Your task to perform on an android device: check the backup settings in the google photos Image 0: 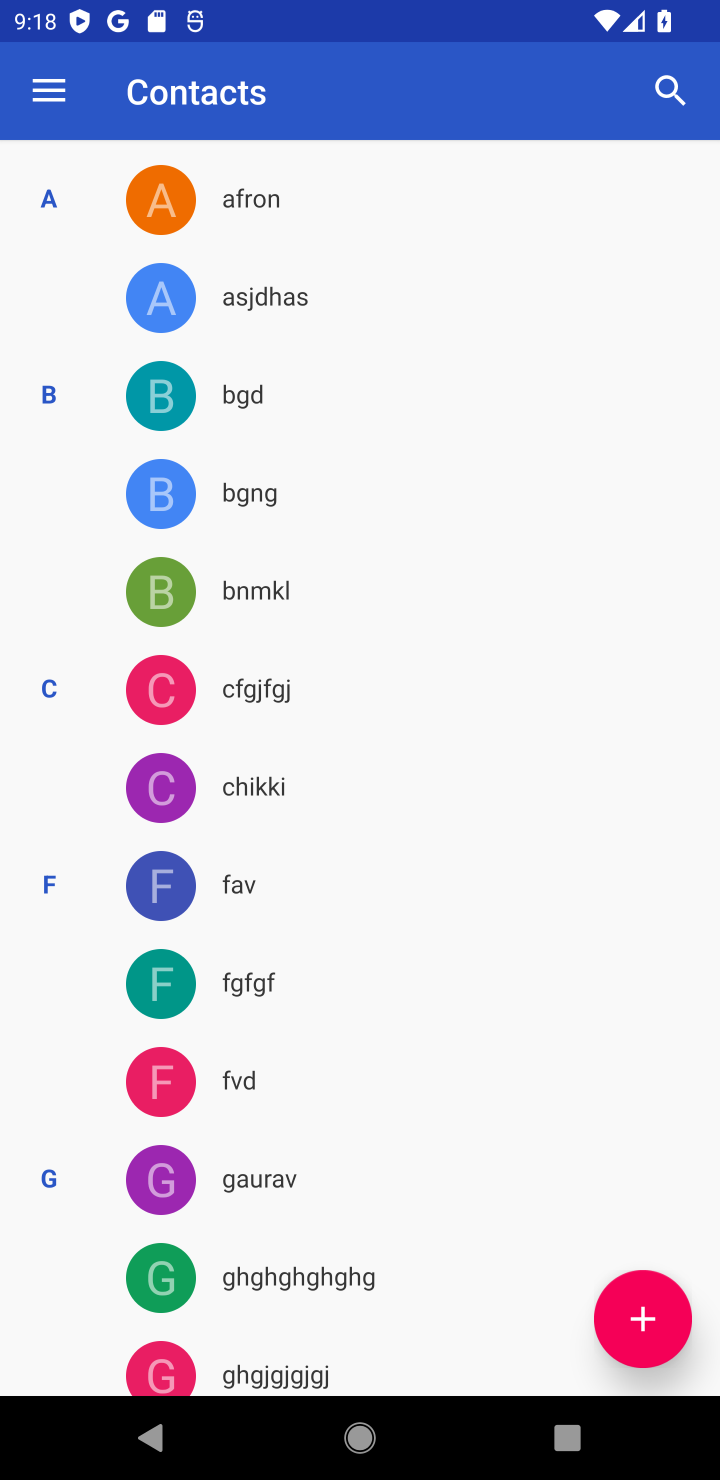
Step 0: press home button
Your task to perform on an android device: check the backup settings in the google photos Image 1: 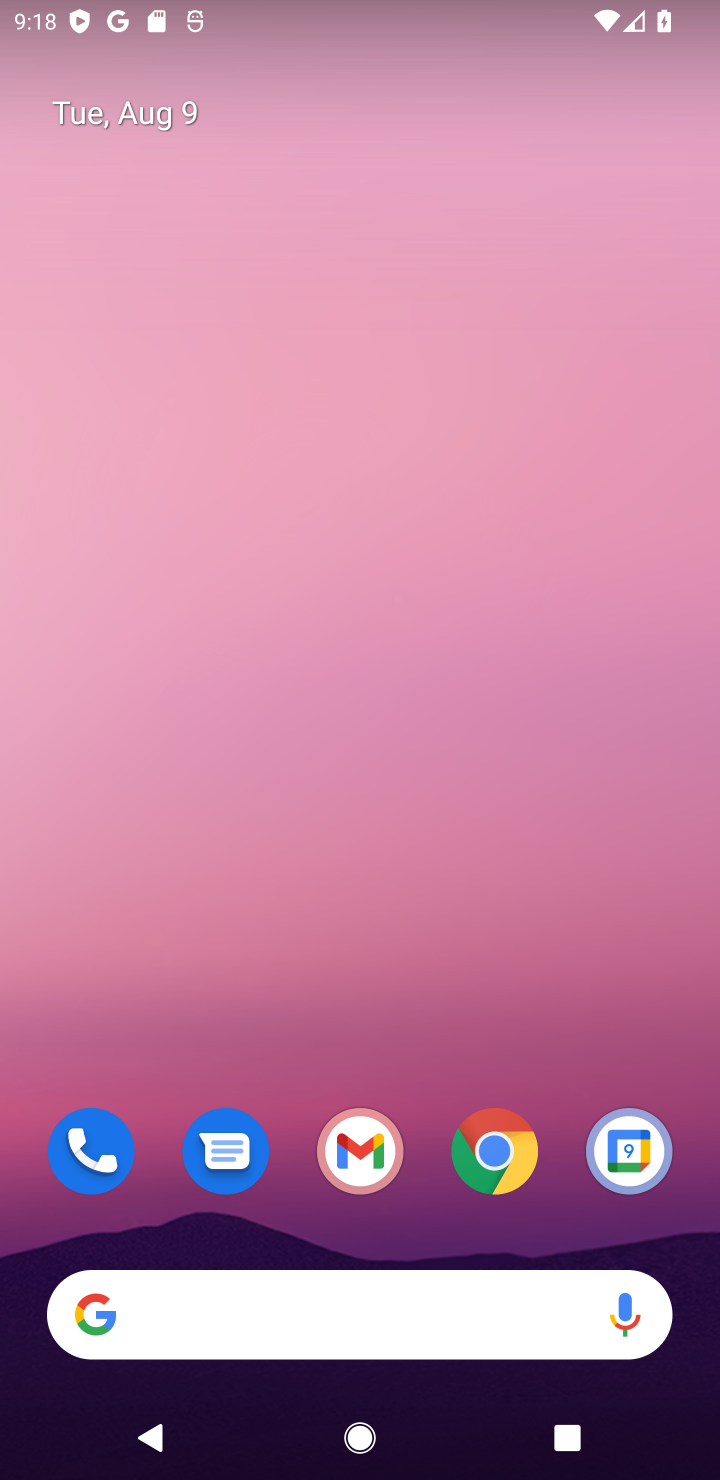
Step 1: drag from (280, 1039) to (350, 273)
Your task to perform on an android device: check the backup settings in the google photos Image 2: 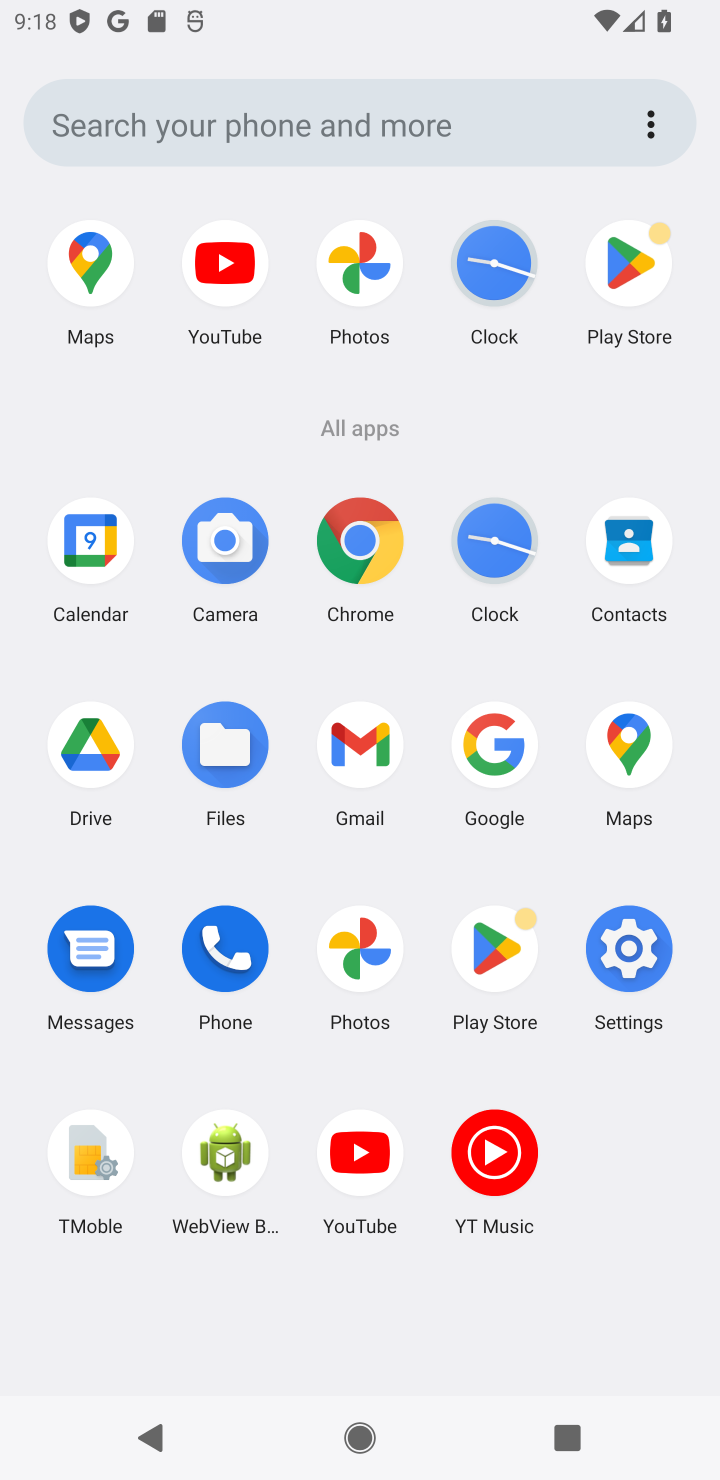
Step 2: click (353, 280)
Your task to perform on an android device: check the backup settings in the google photos Image 3: 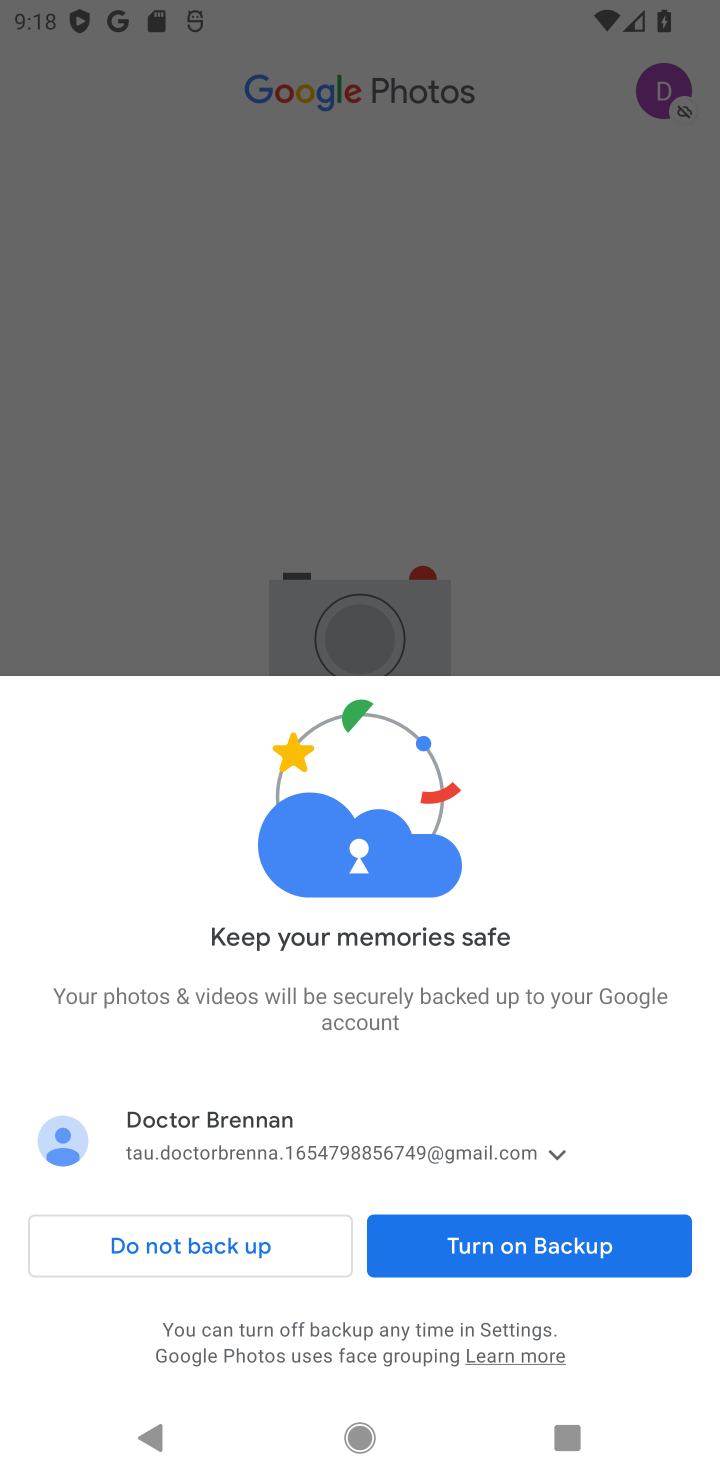
Step 3: click (402, 1235)
Your task to perform on an android device: check the backup settings in the google photos Image 4: 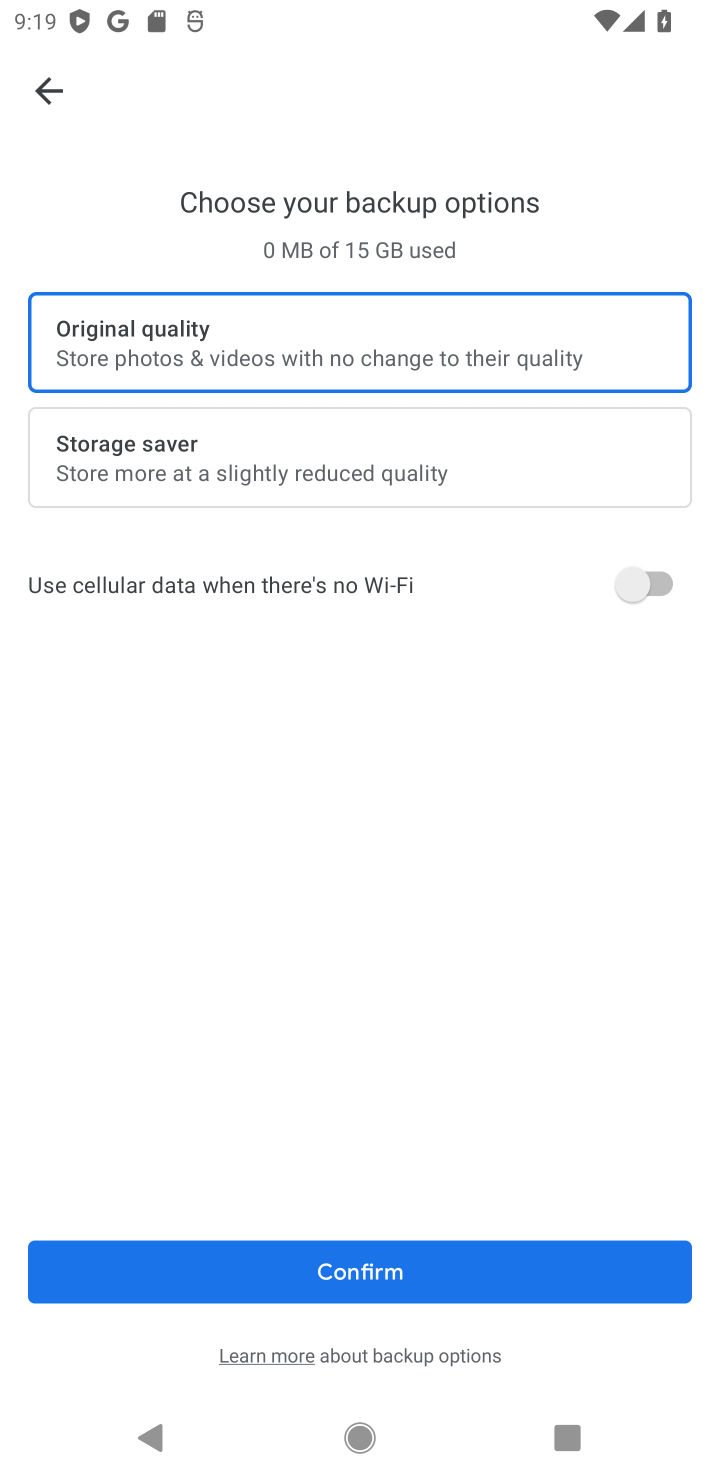
Step 4: click (261, 1266)
Your task to perform on an android device: check the backup settings in the google photos Image 5: 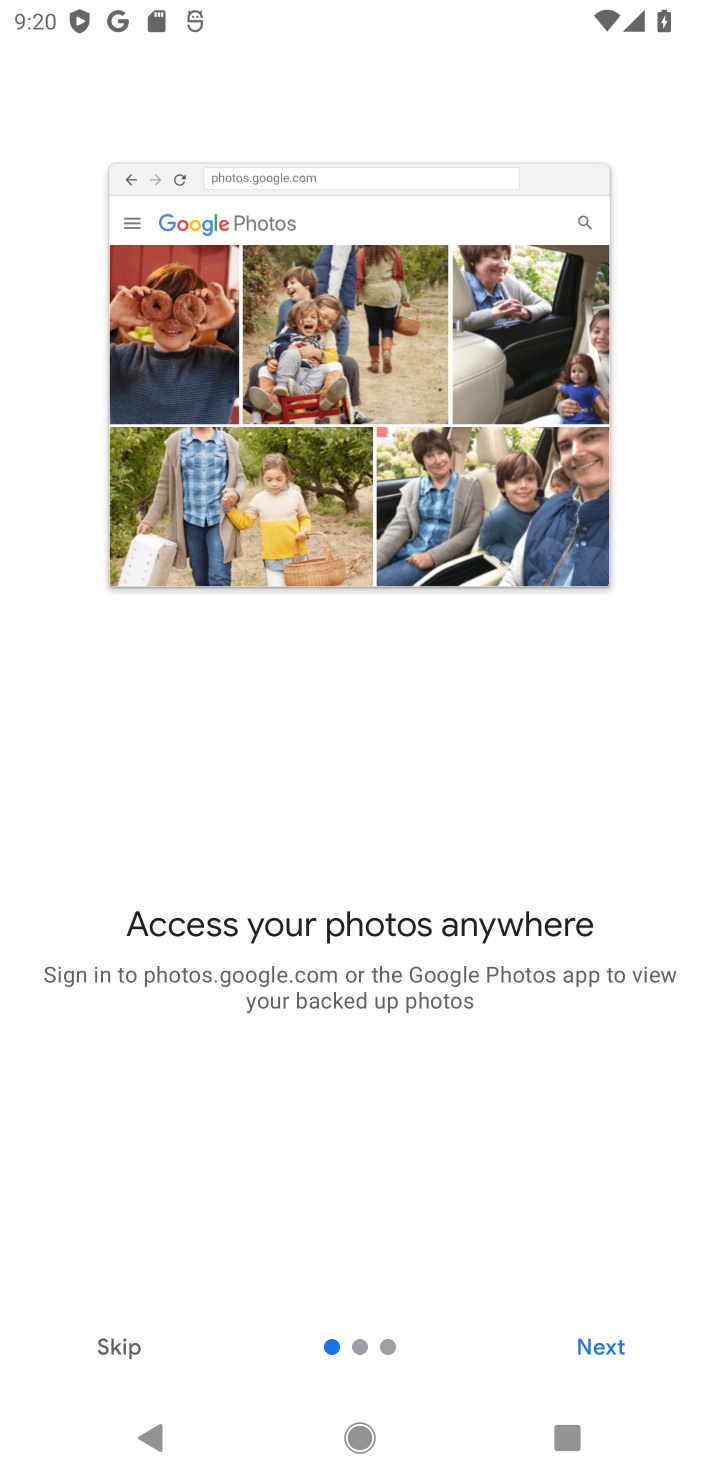
Step 5: task complete